Your task to perform on an android device: Go to Android settings Image 0: 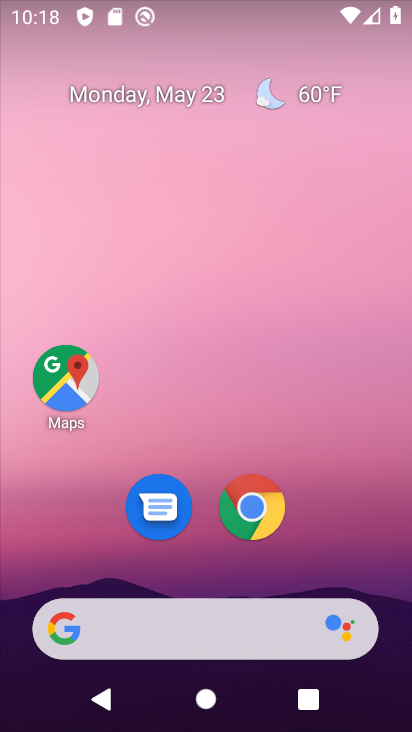
Step 0: drag from (345, 535) to (250, 148)
Your task to perform on an android device: Go to Android settings Image 1: 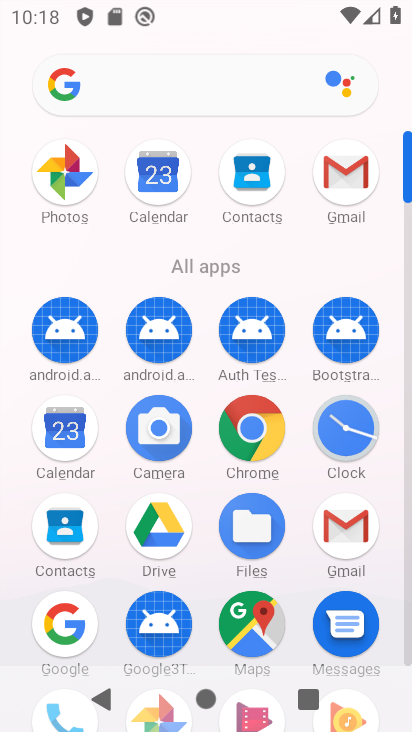
Step 1: drag from (202, 574) to (197, 389)
Your task to perform on an android device: Go to Android settings Image 2: 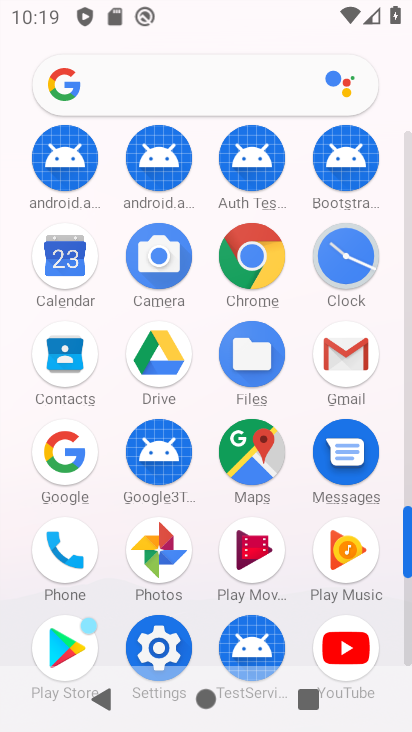
Step 2: click (163, 644)
Your task to perform on an android device: Go to Android settings Image 3: 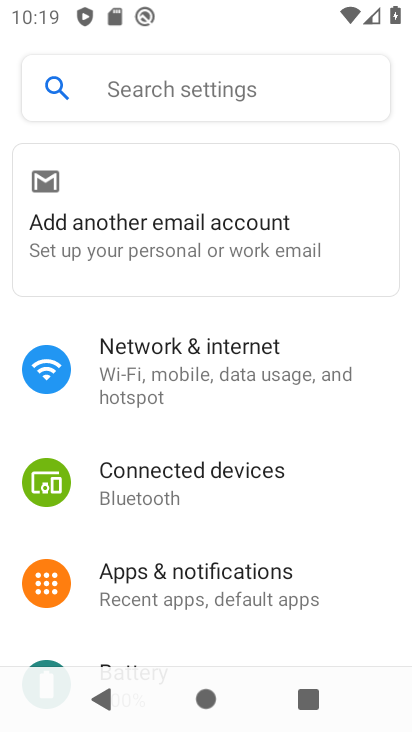
Step 3: task complete